Your task to perform on an android device: Turn on the flashlight Image 0: 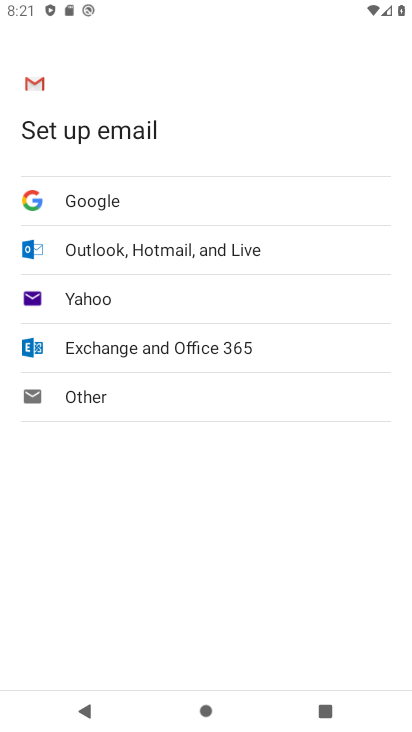
Step 0: press home button
Your task to perform on an android device: Turn on the flashlight Image 1: 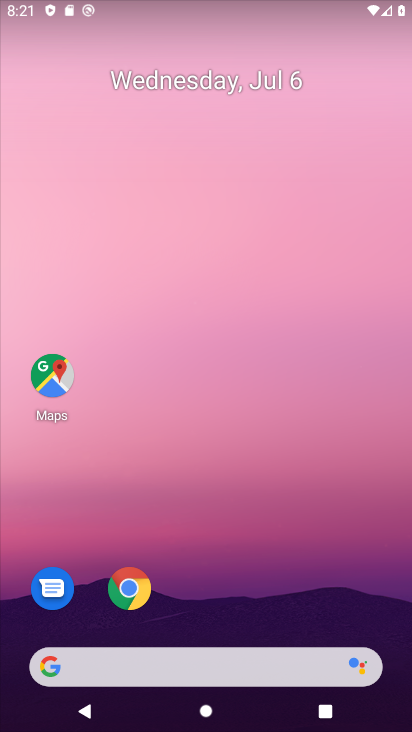
Step 1: drag from (287, 7) to (285, 347)
Your task to perform on an android device: Turn on the flashlight Image 2: 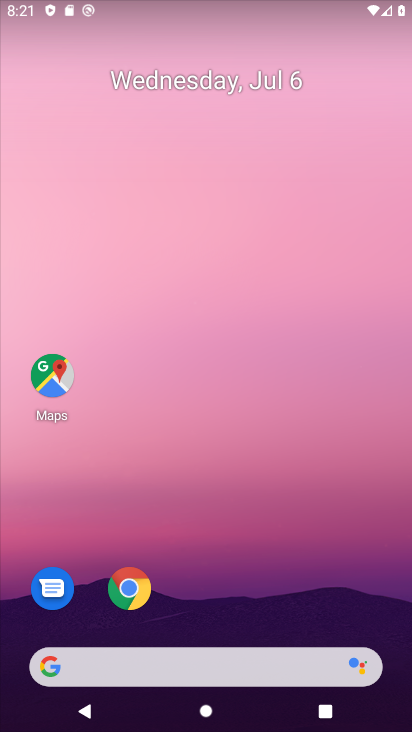
Step 2: drag from (254, 4) to (257, 467)
Your task to perform on an android device: Turn on the flashlight Image 3: 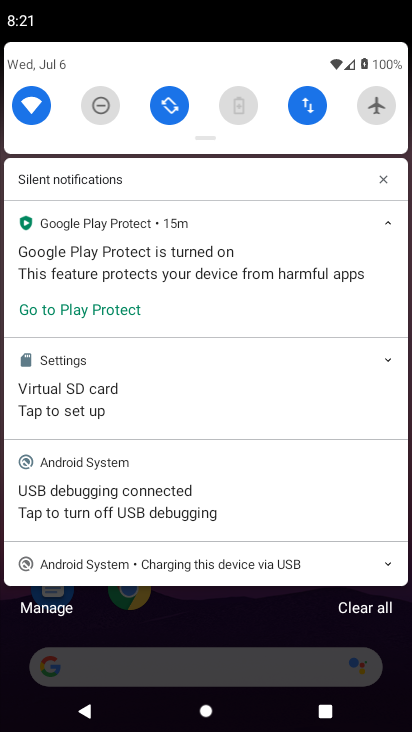
Step 3: drag from (276, 112) to (265, 480)
Your task to perform on an android device: Turn on the flashlight Image 4: 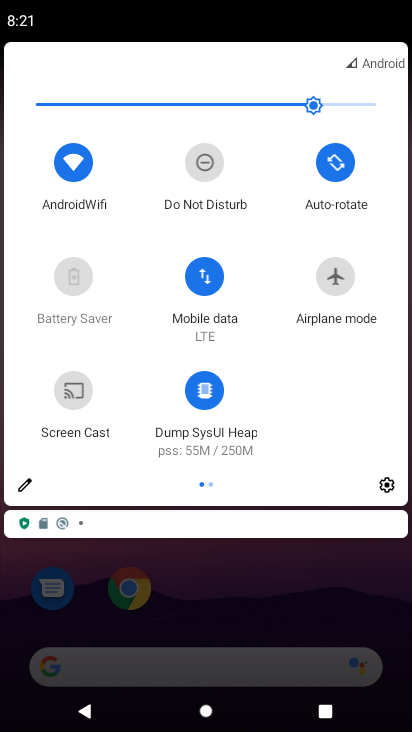
Step 4: drag from (371, 353) to (63, 356)
Your task to perform on an android device: Turn on the flashlight Image 5: 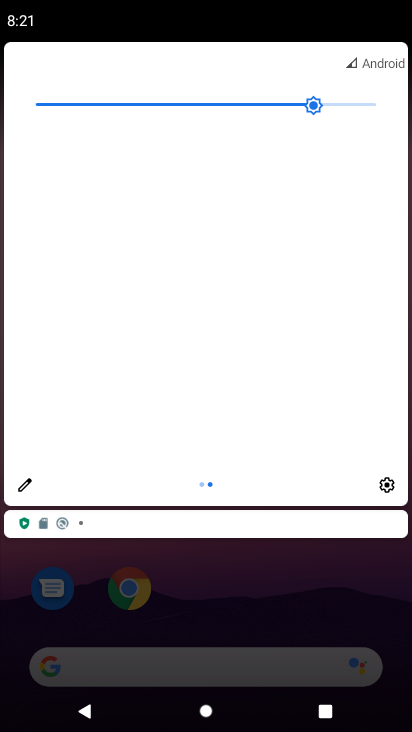
Step 5: click (28, 478)
Your task to perform on an android device: Turn on the flashlight Image 6: 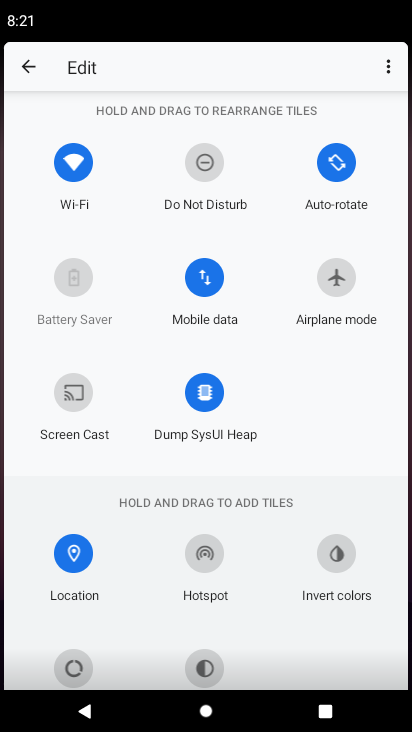
Step 6: task complete